Your task to perform on an android device: check battery use Image 0: 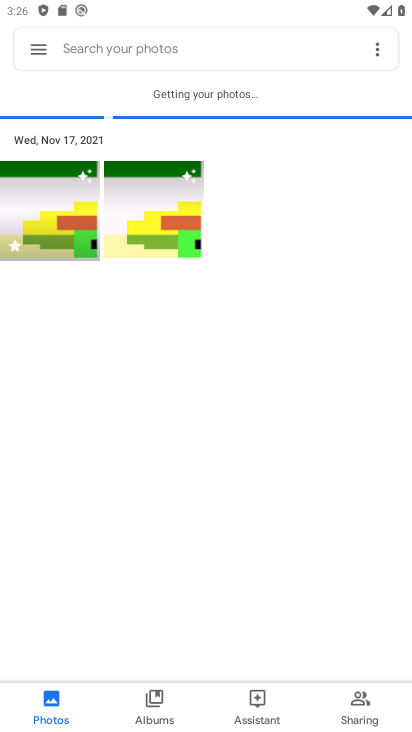
Step 0: press back button
Your task to perform on an android device: check battery use Image 1: 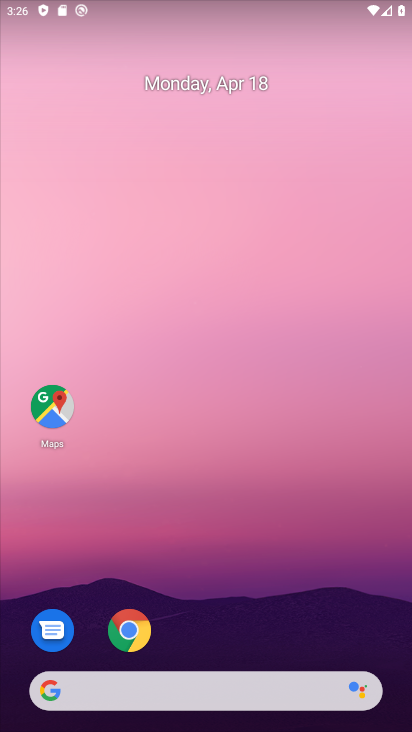
Step 1: drag from (238, 440) to (306, 99)
Your task to perform on an android device: check battery use Image 2: 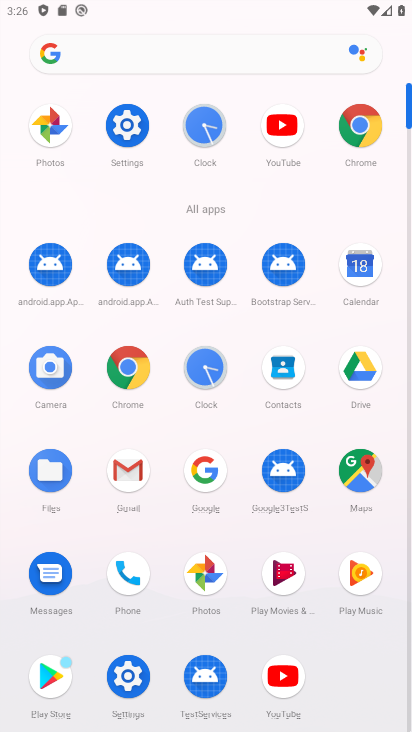
Step 2: click (121, 682)
Your task to perform on an android device: check battery use Image 3: 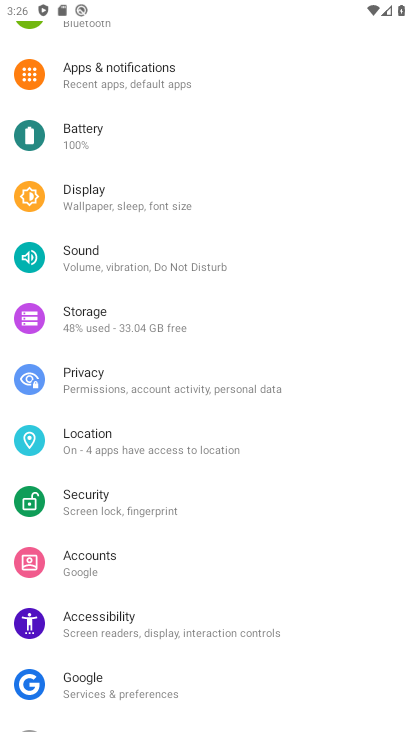
Step 3: click (104, 133)
Your task to perform on an android device: check battery use Image 4: 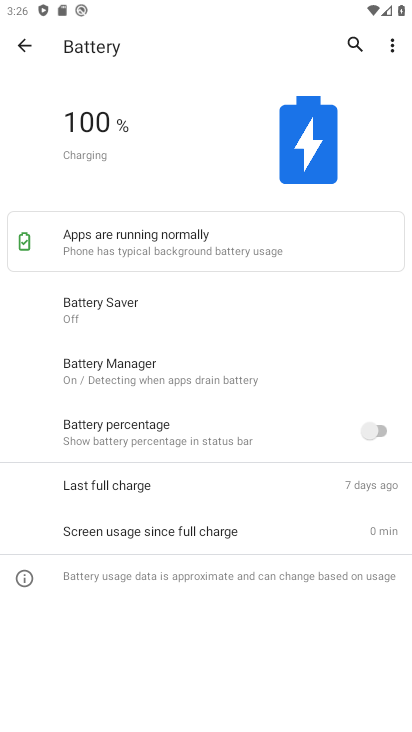
Step 4: click (398, 42)
Your task to perform on an android device: check battery use Image 5: 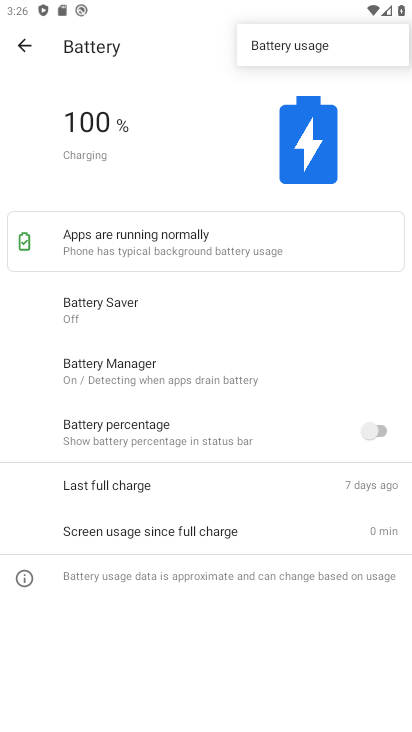
Step 5: click (369, 51)
Your task to perform on an android device: check battery use Image 6: 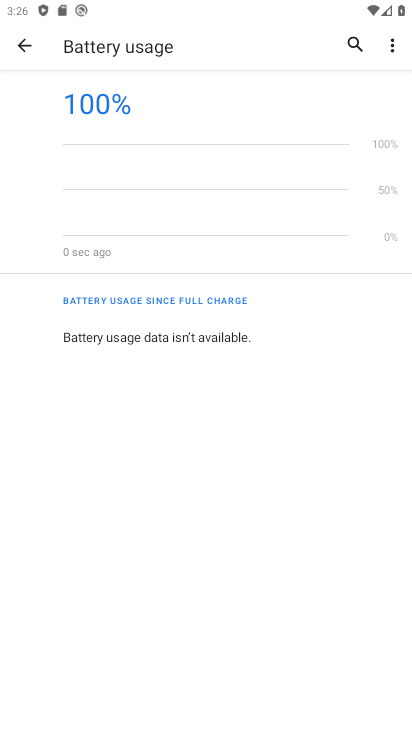
Step 6: task complete